Your task to perform on an android device: check google app version Image 0: 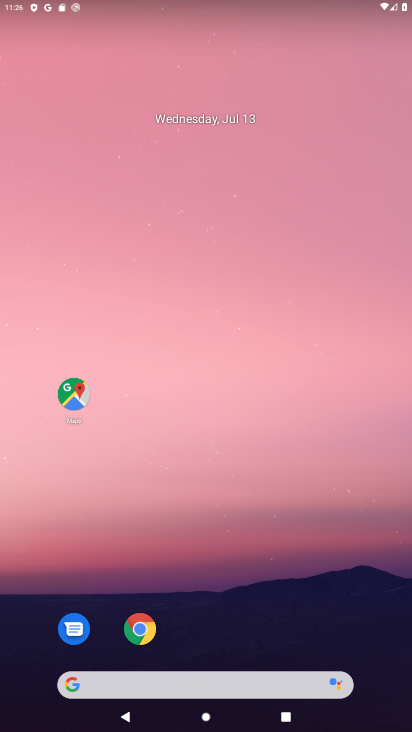
Step 0: press home button
Your task to perform on an android device: check google app version Image 1: 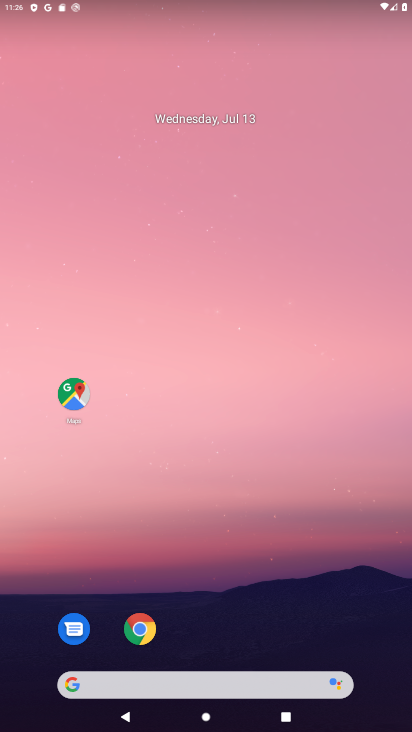
Step 1: click (100, 683)
Your task to perform on an android device: check google app version Image 2: 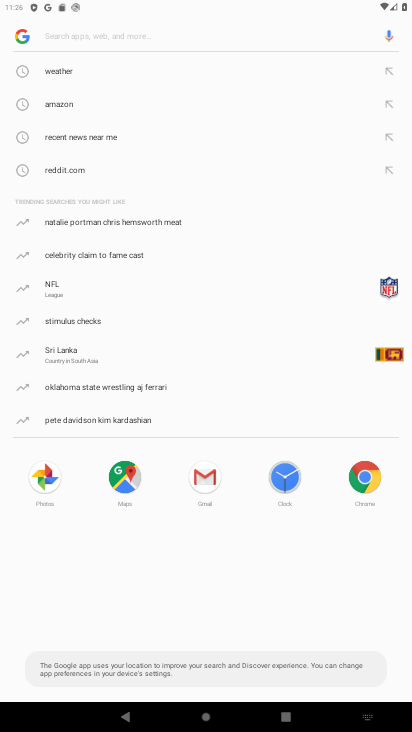
Step 2: click (29, 37)
Your task to perform on an android device: check google app version Image 3: 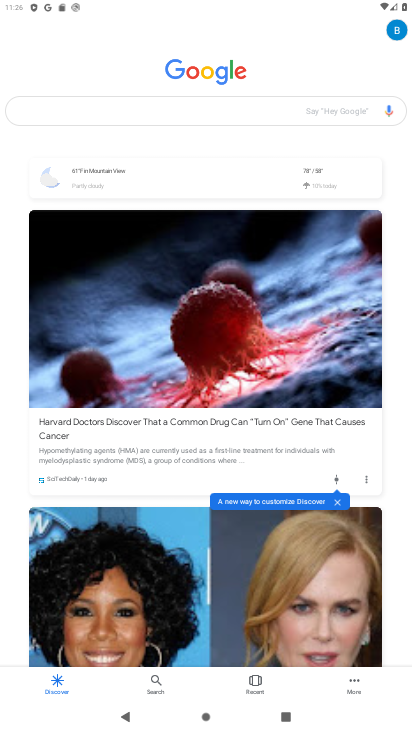
Step 3: click (357, 681)
Your task to perform on an android device: check google app version Image 4: 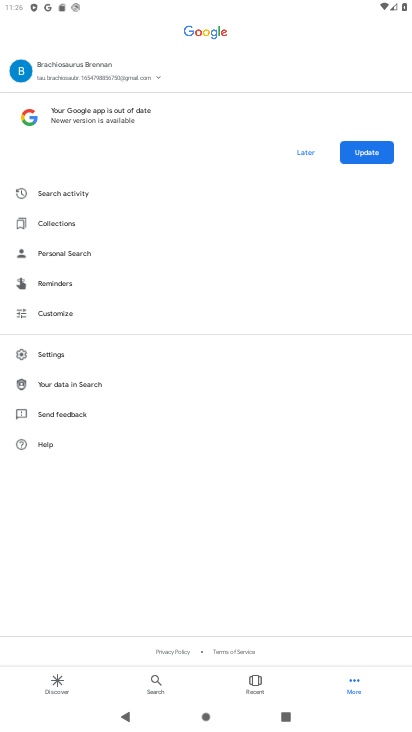
Step 4: click (67, 358)
Your task to perform on an android device: check google app version Image 5: 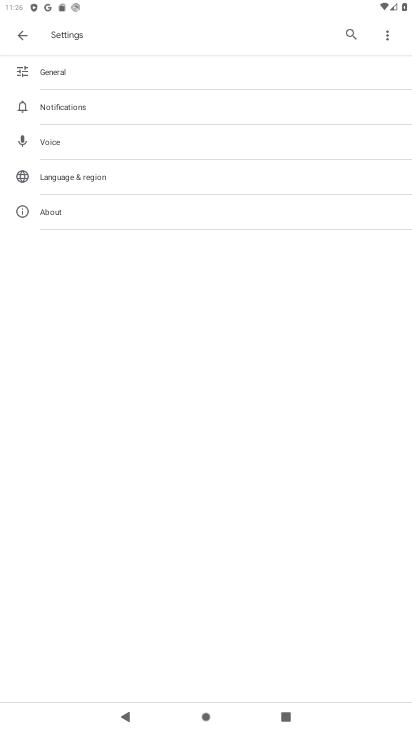
Step 5: click (52, 213)
Your task to perform on an android device: check google app version Image 6: 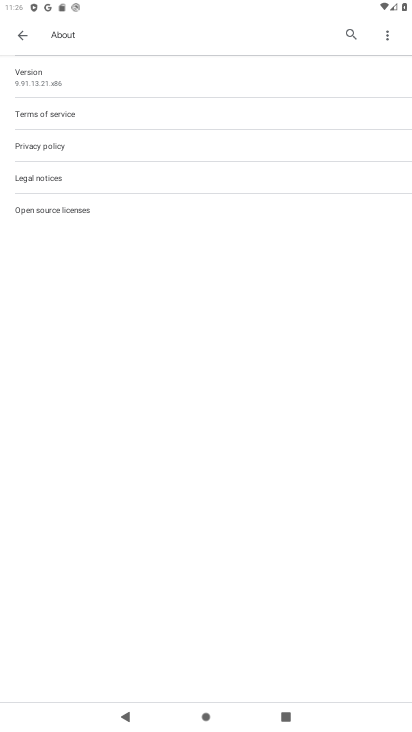
Step 6: task complete